Your task to perform on an android device: choose inbox layout in the gmail app Image 0: 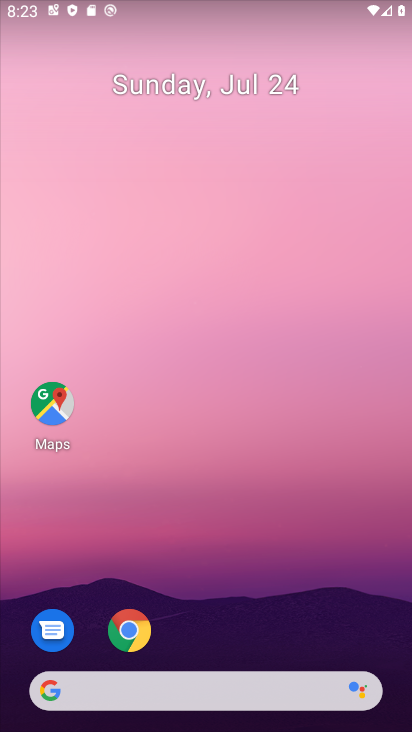
Step 0: drag from (199, 600) to (116, 131)
Your task to perform on an android device: choose inbox layout in the gmail app Image 1: 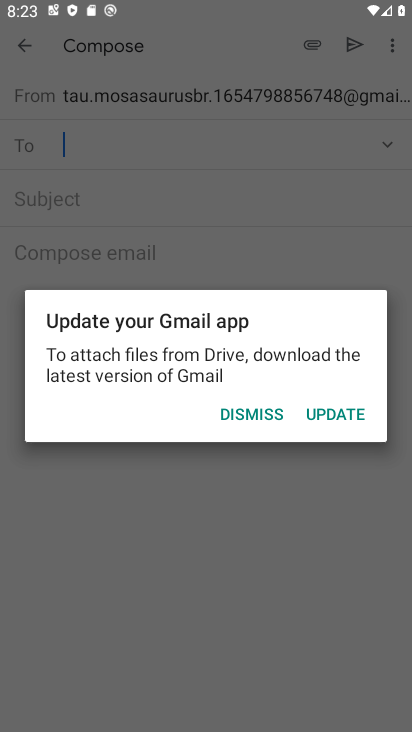
Step 1: click (243, 420)
Your task to perform on an android device: choose inbox layout in the gmail app Image 2: 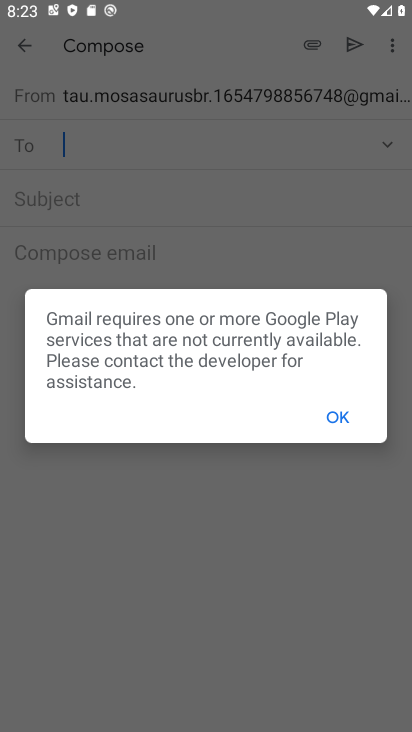
Step 2: click (19, 56)
Your task to perform on an android device: choose inbox layout in the gmail app Image 3: 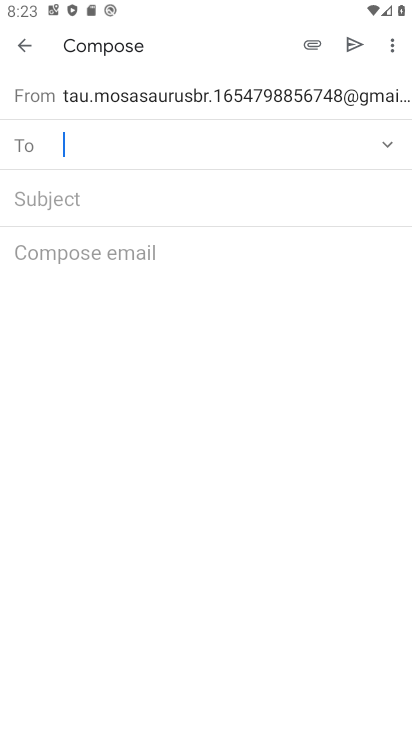
Step 3: click (23, 43)
Your task to perform on an android device: choose inbox layout in the gmail app Image 4: 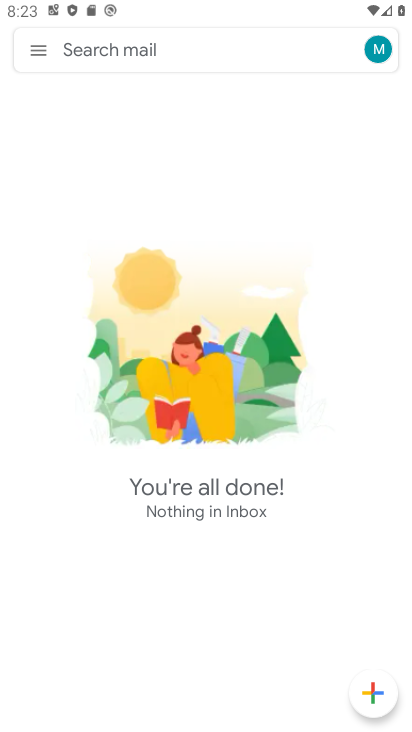
Step 4: click (23, 43)
Your task to perform on an android device: choose inbox layout in the gmail app Image 5: 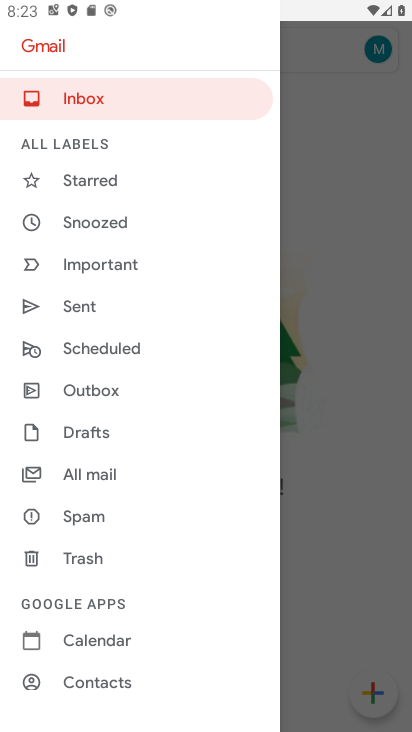
Step 5: drag from (112, 627) to (79, 289)
Your task to perform on an android device: choose inbox layout in the gmail app Image 6: 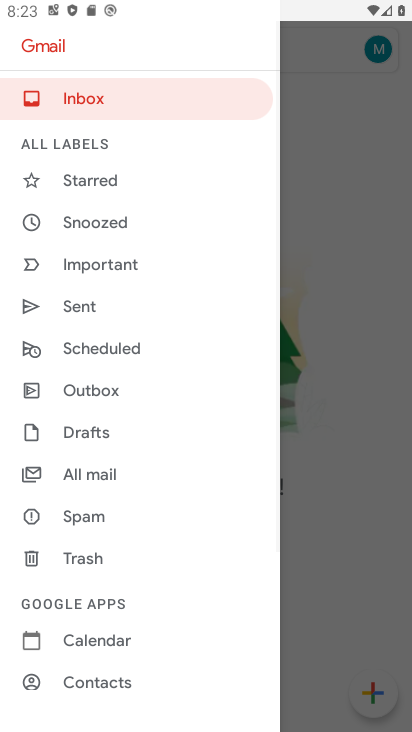
Step 6: drag from (125, 650) to (131, 385)
Your task to perform on an android device: choose inbox layout in the gmail app Image 7: 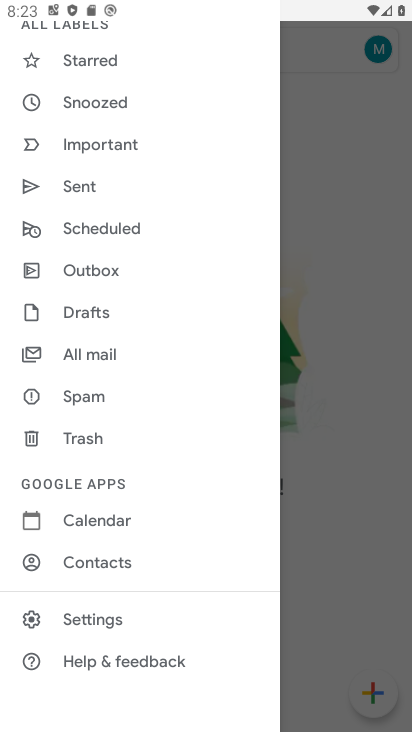
Step 7: click (109, 626)
Your task to perform on an android device: choose inbox layout in the gmail app Image 8: 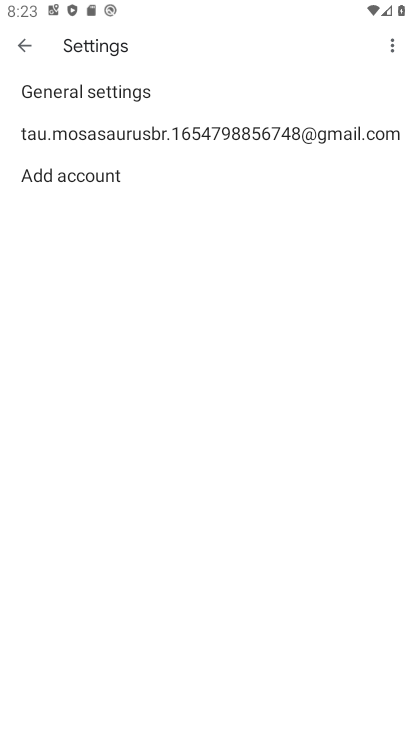
Step 8: click (86, 139)
Your task to perform on an android device: choose inbox layout in the gmail app Image 9: 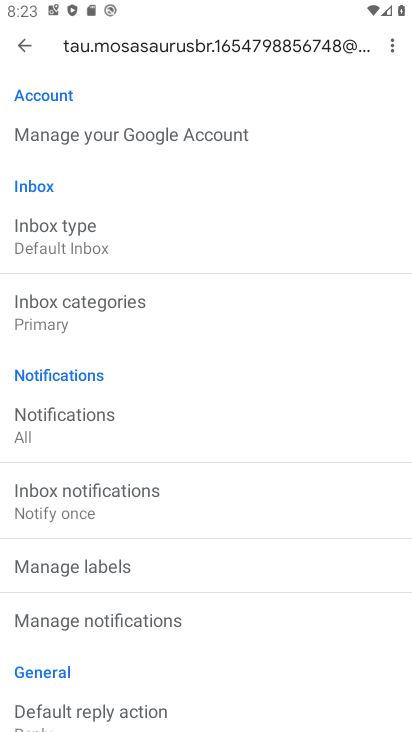
Step 9: click (110, 244)
Your task to perform on an android device: choose inbox layout in the gmail app Image 10: 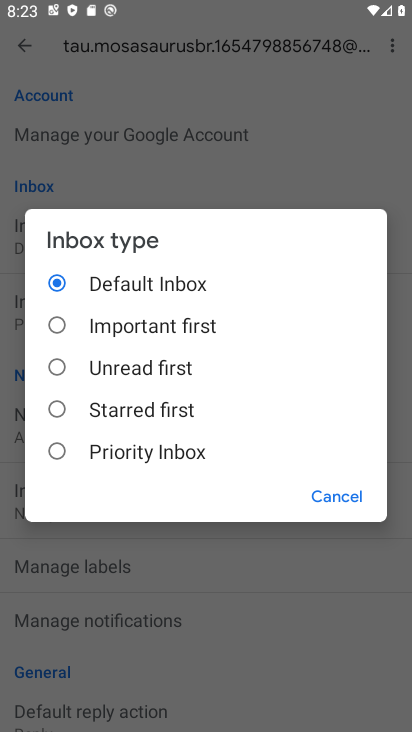
Step 10: click (109, 457)
Your task to perform on an android device: choose inbox layout in the gmail app Image 11: 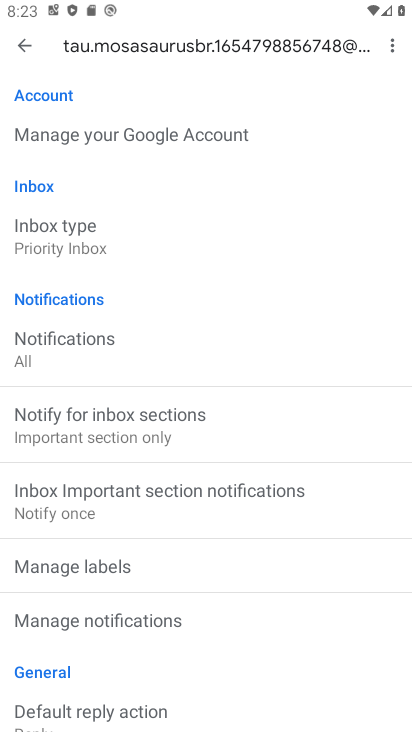
Step 11: task complete